Your task to perform on an android device: check out phone information Image 0: 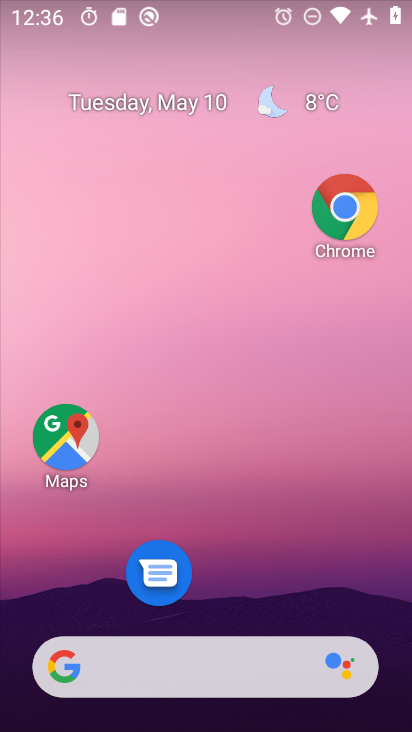
Step 0: drag from (313, 570) to (241, 46)
Your task to perform on an android device: check out phone information Image 1: 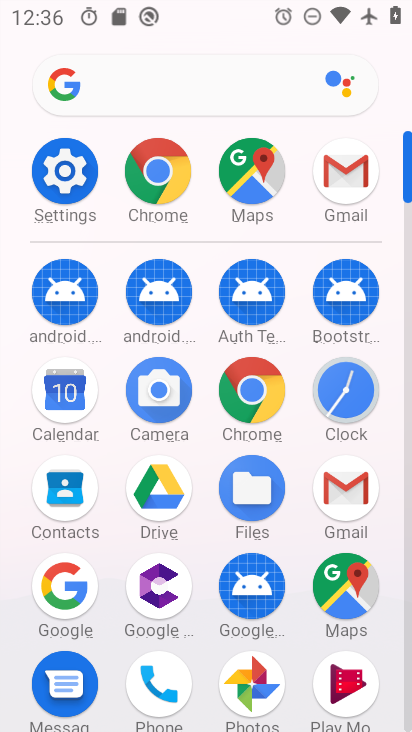
Step 1: click (158, 680)
Your task to perform on an android device: check out phone information Image 2: 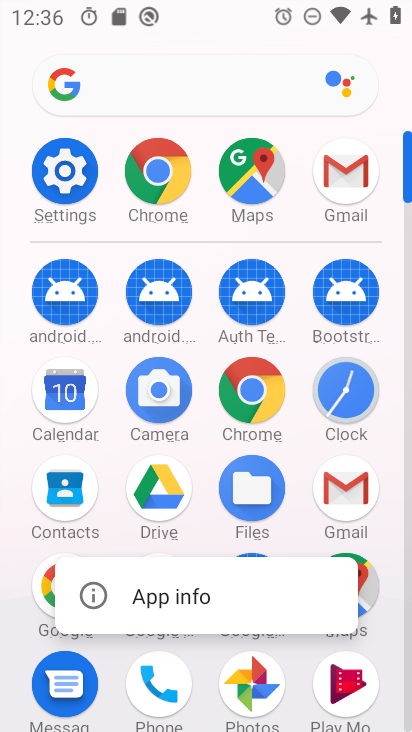
Step 2: click (181, 602)
Your task to perform on an android device: check out phone information Image 3: 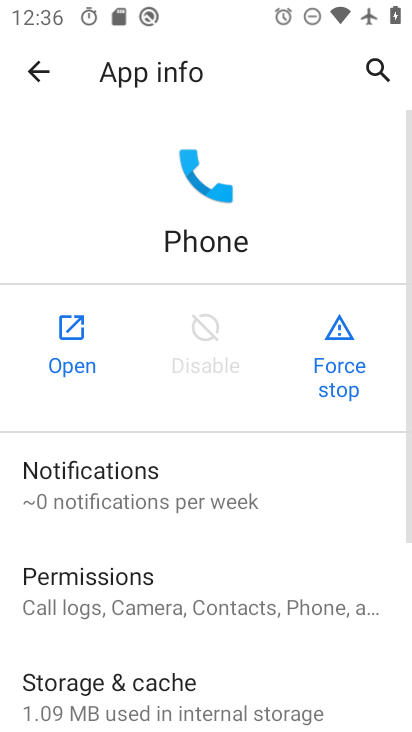
Step 3: drag from (333, 646) to (316, 84)
Your task to perform on an android device: check out phone information Image 4: 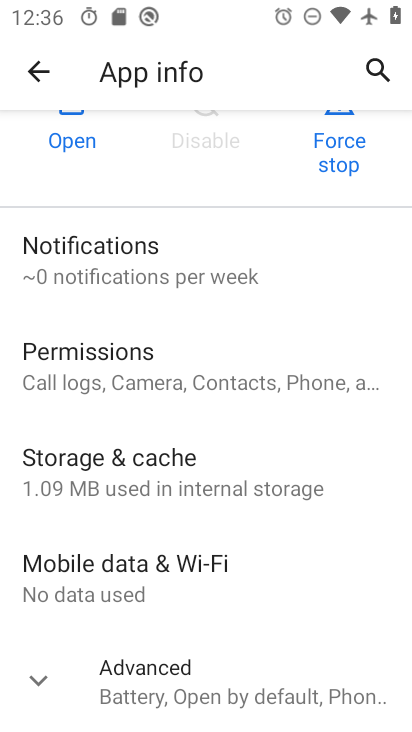
Step 4: click (176, 703)
Your task to perform on an android device: check out phone information Image 5: 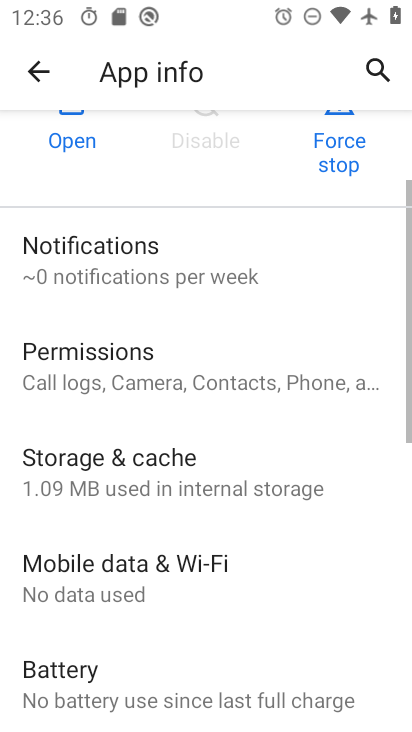
Step 5: task complete